Your task to perform on an android device: What's the weather today? Image 0: 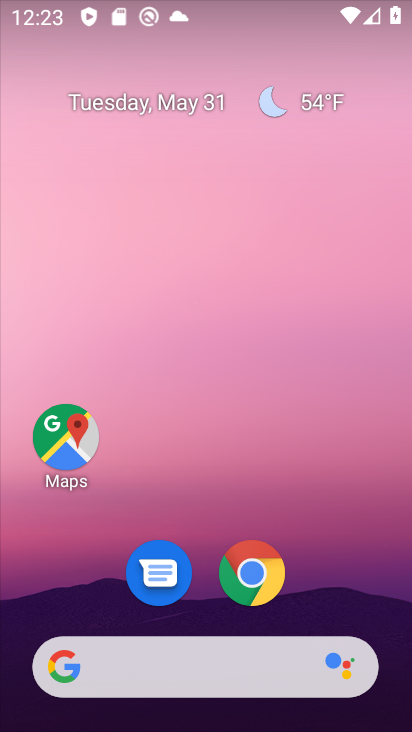
Step 0: click (305, 114)
Your task to perform on an android device: What's the weather today? Image 1: 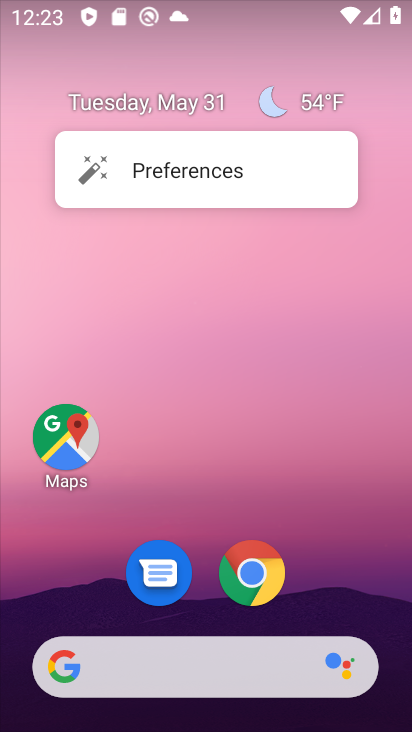
Step 1: click (322, 121)
Your task to perform on an android device: What's the weather today? Image 2: 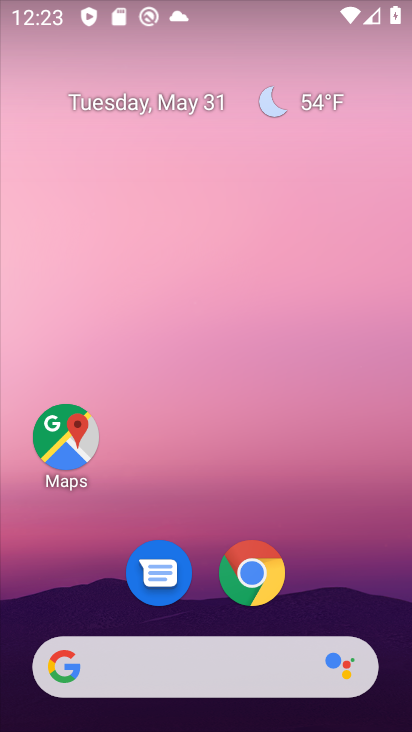
Step 2: click (292, 84)
Your task to perform on an android device: What's the weather today? Image 3: 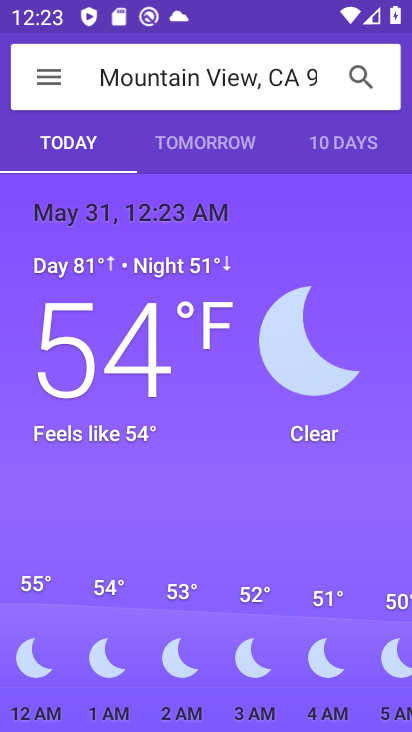
Step 3: task complete